Your task to perform on an android device: Go to Wikipedia Image 0: 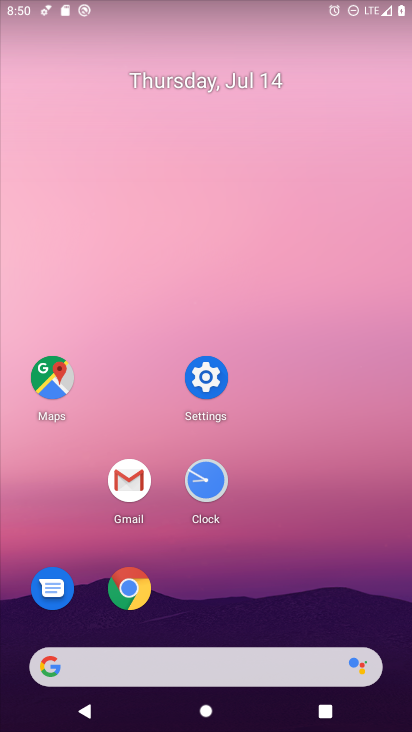
Step 0: click (142, 586)
Your task to perform on an android device: Go to Wikipedia Image 1: 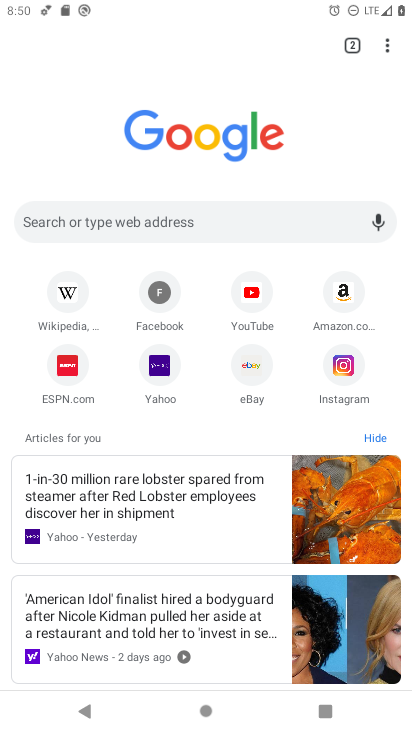
Step 1: click (148, 227)
Your task to perform on an android device: Go to Wikipedia Image 2: 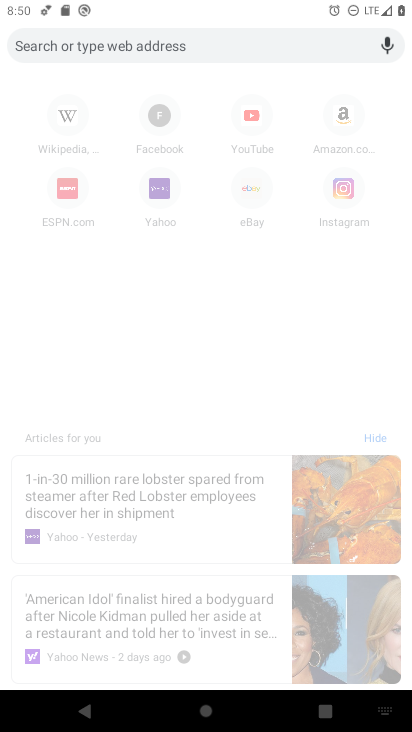
Step 2: type "Wikipedia"
Your task to perform on an android device: Go to Wikipedia Image 3: 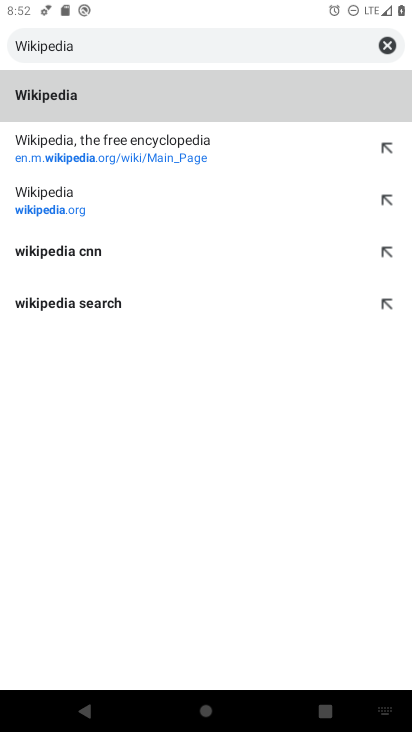
Step 3: click (58, 91)
Your task to perform on an android device: Go to Wikipedia Image 4: 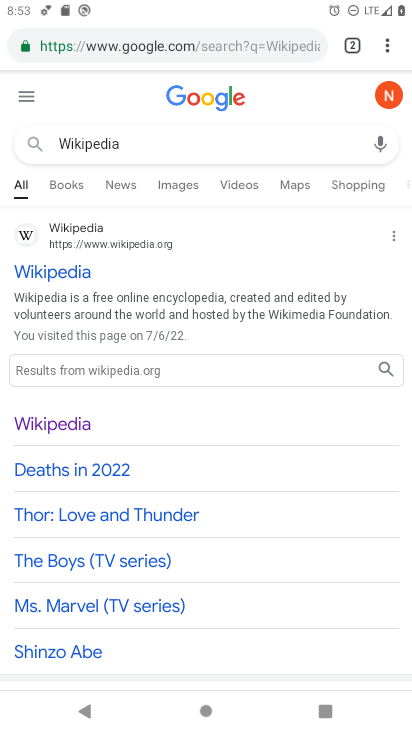
Step 4: task complete